Your task to perform on an android device: Open Reddit.com Image 0: 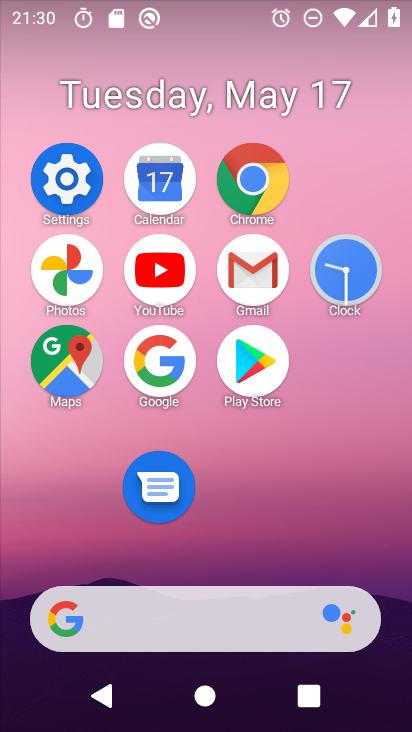
Step 0: click (257, 181)
Your task to perform on an android device: Open Reddit.com Image 1: 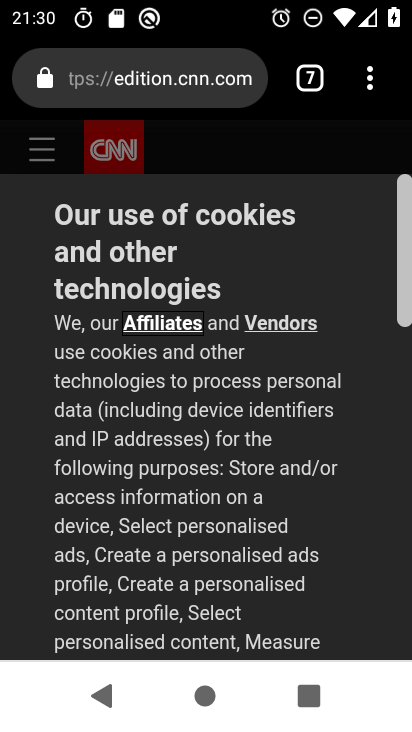
Step 1: click (314, 106)
Your task to perform on an android device: Open Reddit.com Image 2: 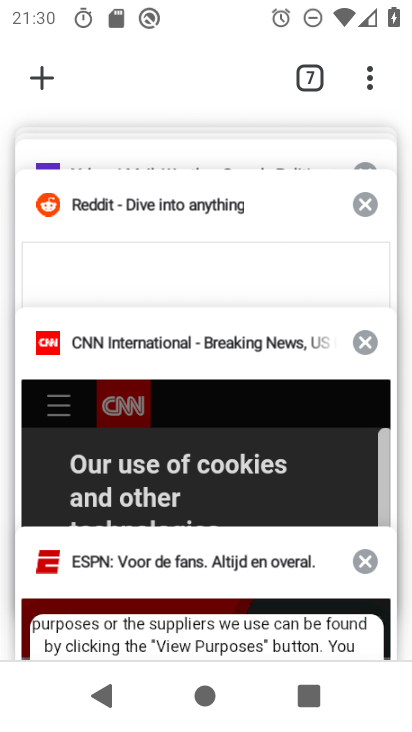
Step 2: drag from (233, 235) to (236, 401)
Your task to perform on an android device: Open Reddit.com Image 3: 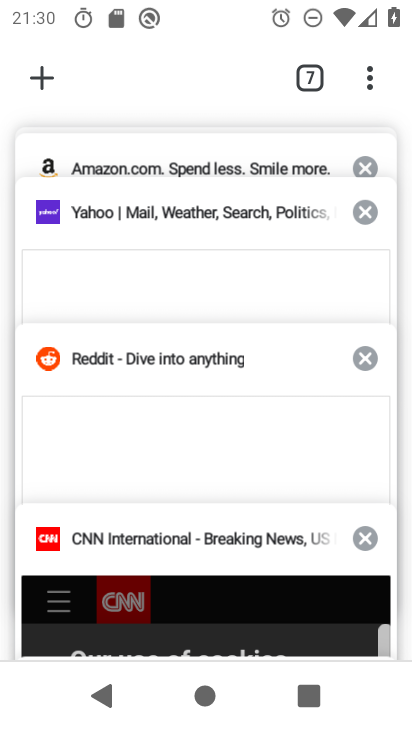
Step 3: click (171, 362)
Your task to perform on an android device: Open Reddit.com Image 4: 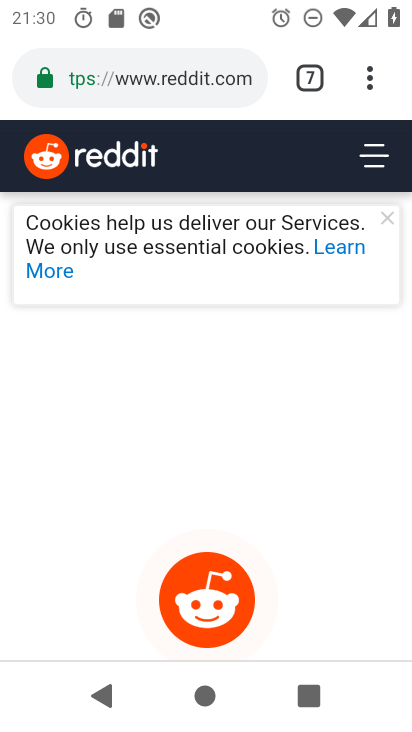
Step 4: task complete